Your task to perform on an android device: Add acer nitro to the cart on ebay.com, then select checkout. Image 0: 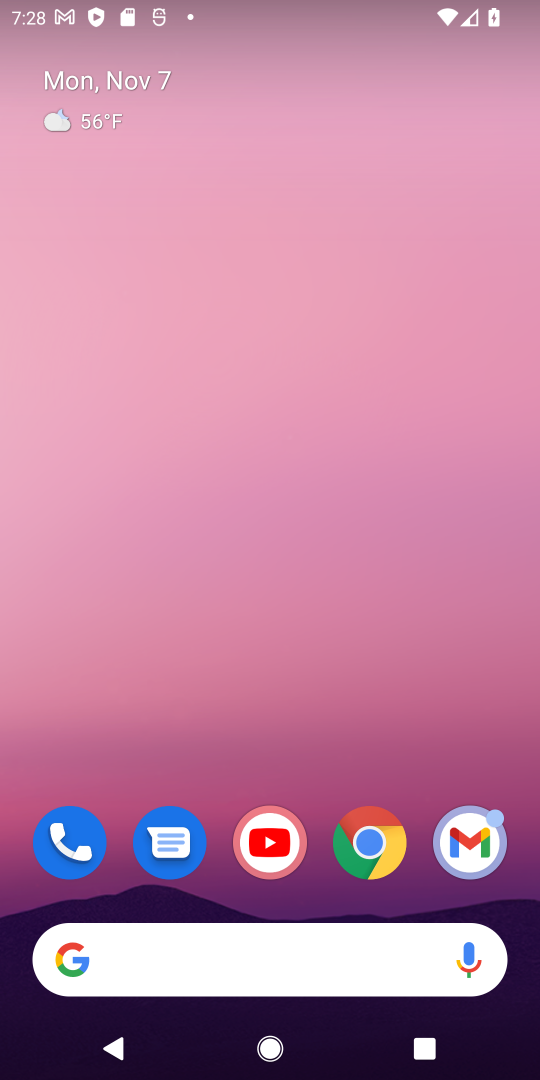
Step 0: click (517, 686)
Your task to perform on an android device: Add acer nitro to the cart on ebay.com, then select checkout. Image 1: 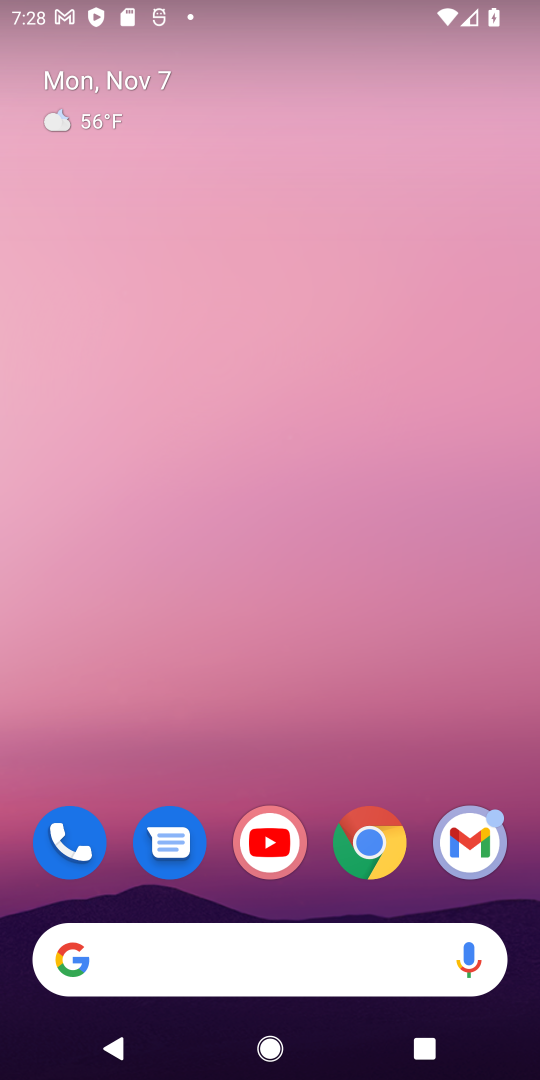
Step 1: click (380, 833)
Your task to perform on an android device: Add acer nitro to the cart on ebay.com, then select checkout. Image 2: 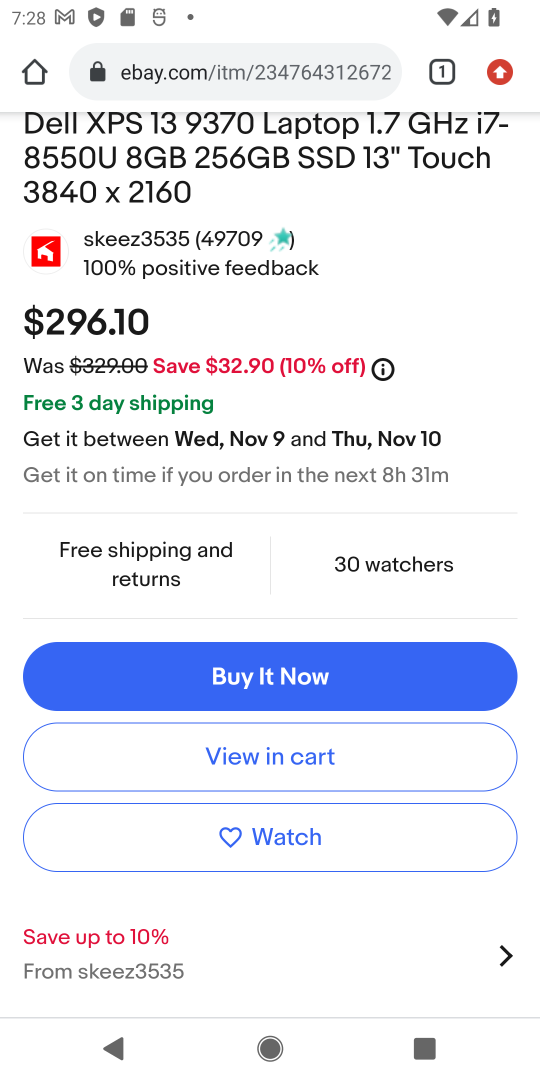
Step 2: drag from (427, 263) to (420, 490)
Your task to perform on an android device: Add acer nitro to the cart on ebay.com, then select checkout. Image 3: 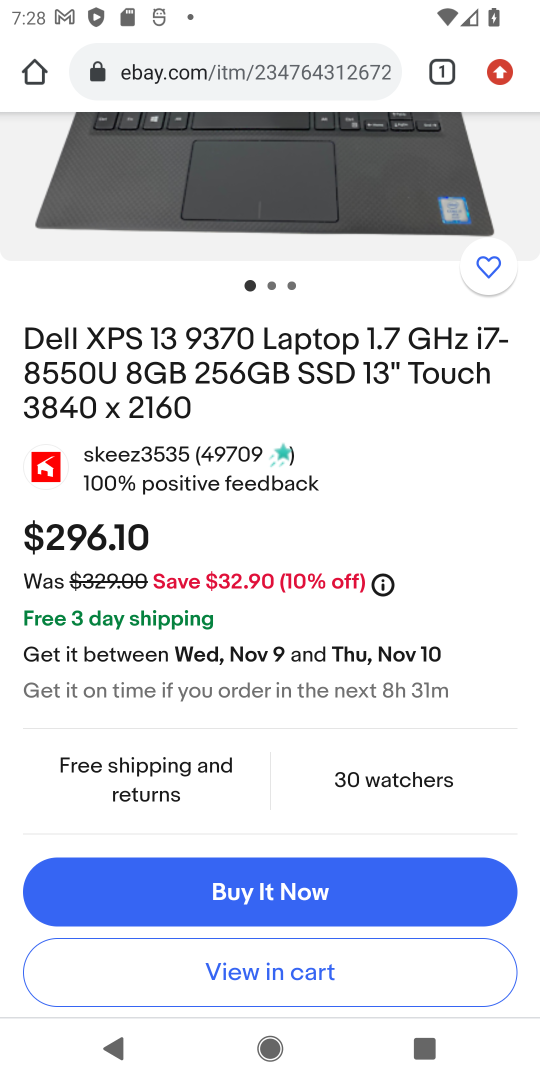
Step 3: click (342, 64)
Your task to perform on an android device: Add acer nitro to the cart on ebay.com, then select checkout. Image 4: 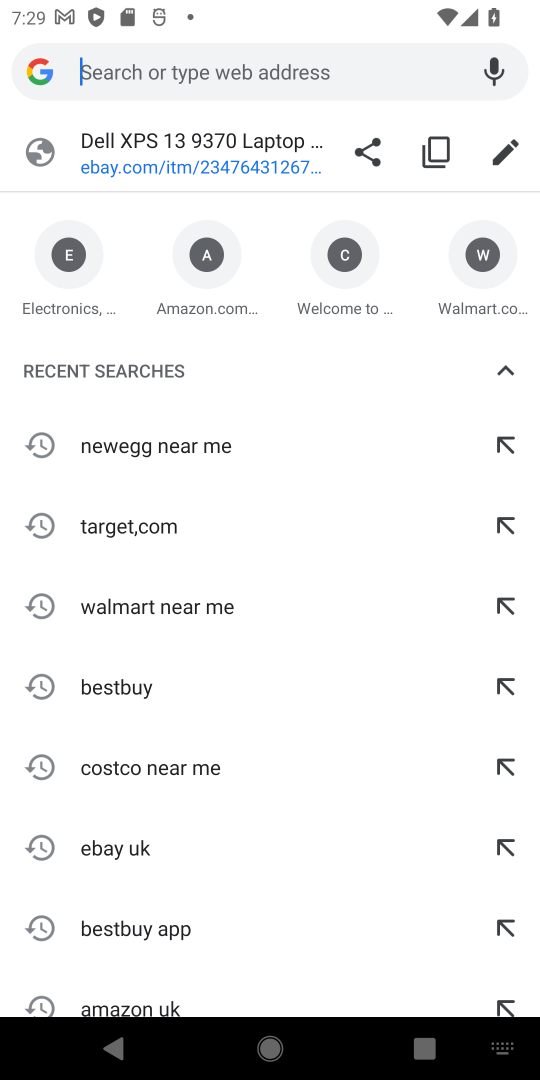
Step 4: type "acer nitro"
Your task to perform on an android device: Add acer nitro to the cart on ebay.com, then select checkout. Image 5: 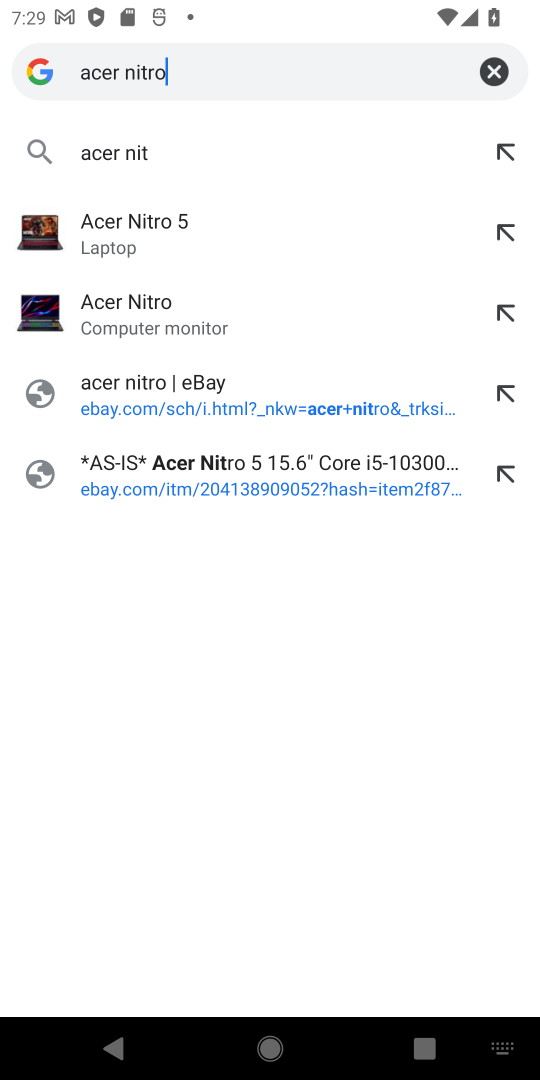
Step 5: press enter
Your task to perform on an android device: Add acer nitro to the cart on ebay.com, then select checkout. Image 6: 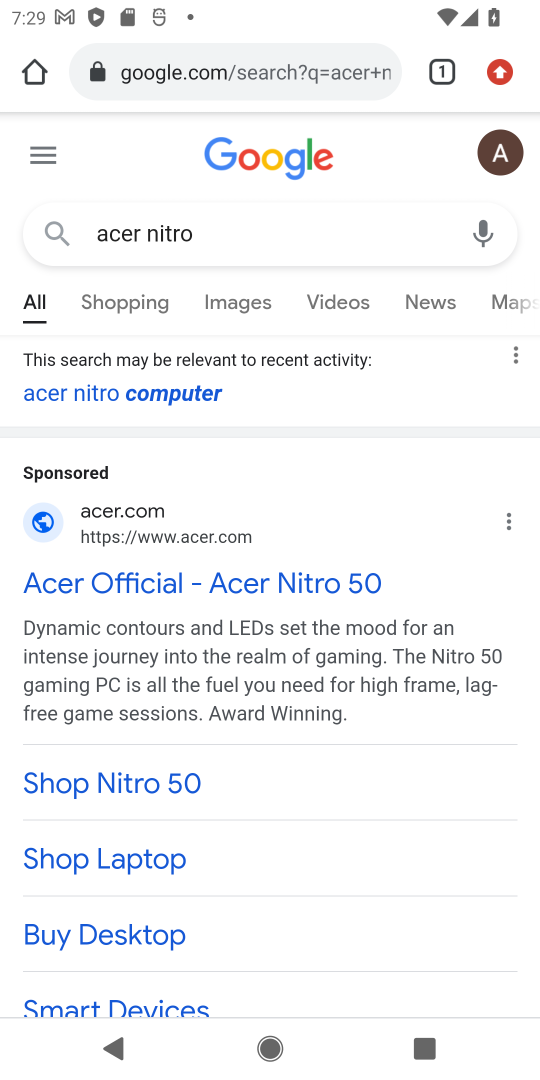
Step 6: click (288, 62)
Your task to perform on an android device: Add acer nitro to the cart on ebay.com, then select checkout. Image 7: 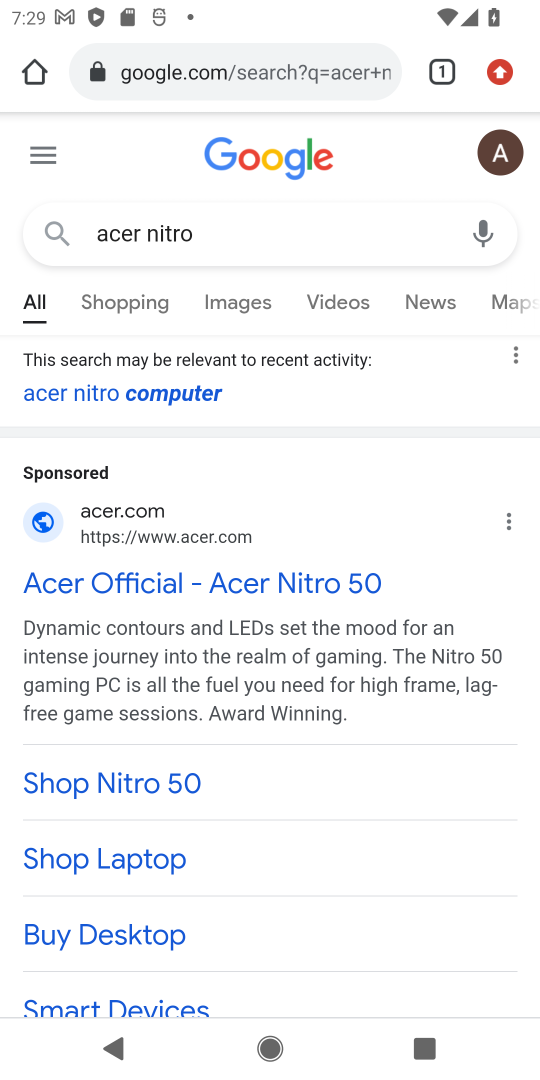
Step 7: click (288, 66)
Your task to perform on an android device: Add acer nitro to the cart on ebay.com, then select checkout. Image 8: 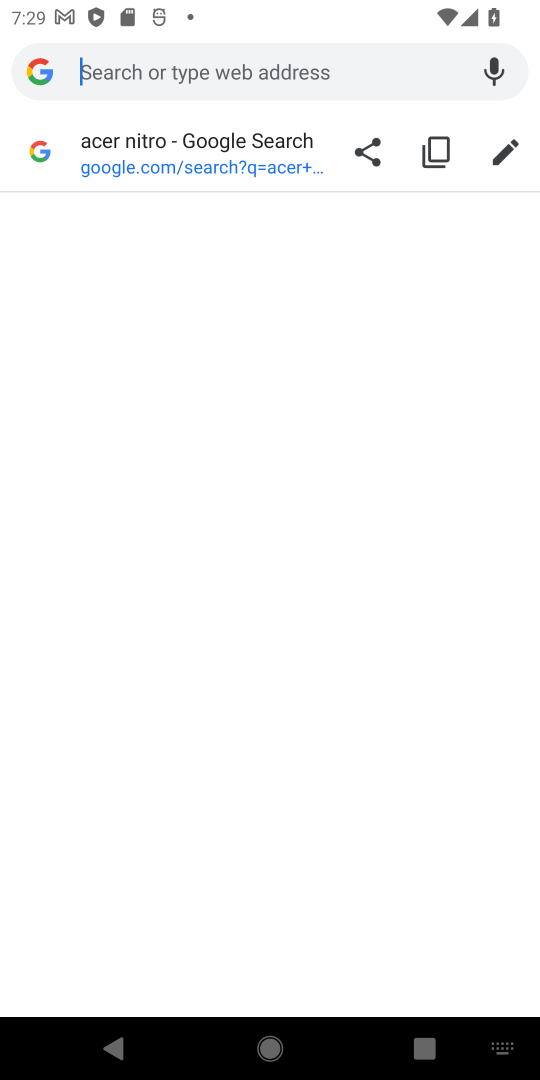
Step 8: click (260, 60)
Your task to perform on an android device: Add acer nitro to the cart on ebay.com, then select checkout. Image 9: 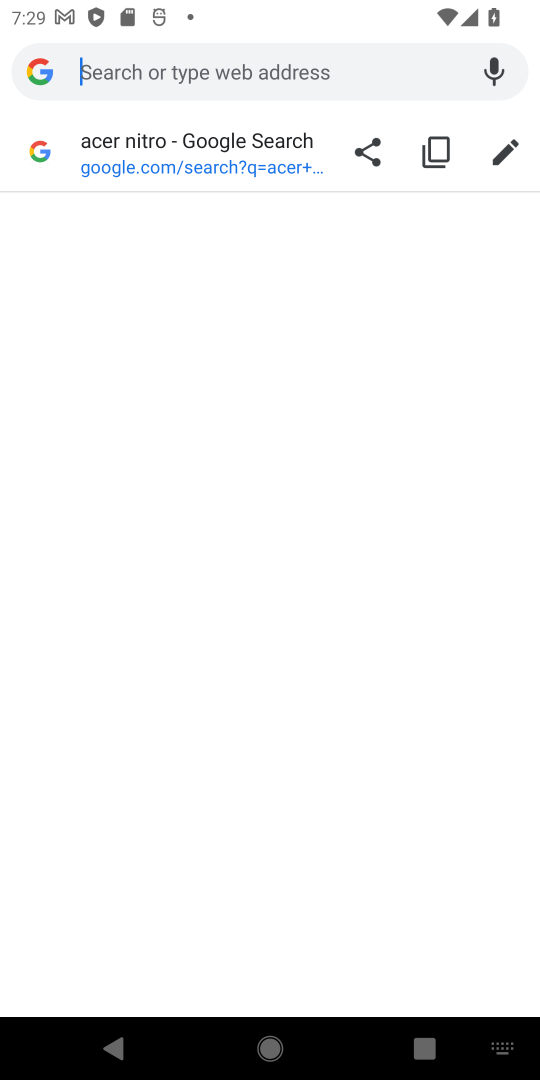
Step 9: type " ebay.com"
Your task to perform on an android device: Add acer nitro to the cart on ebay.com, then select checkout. Image 10: 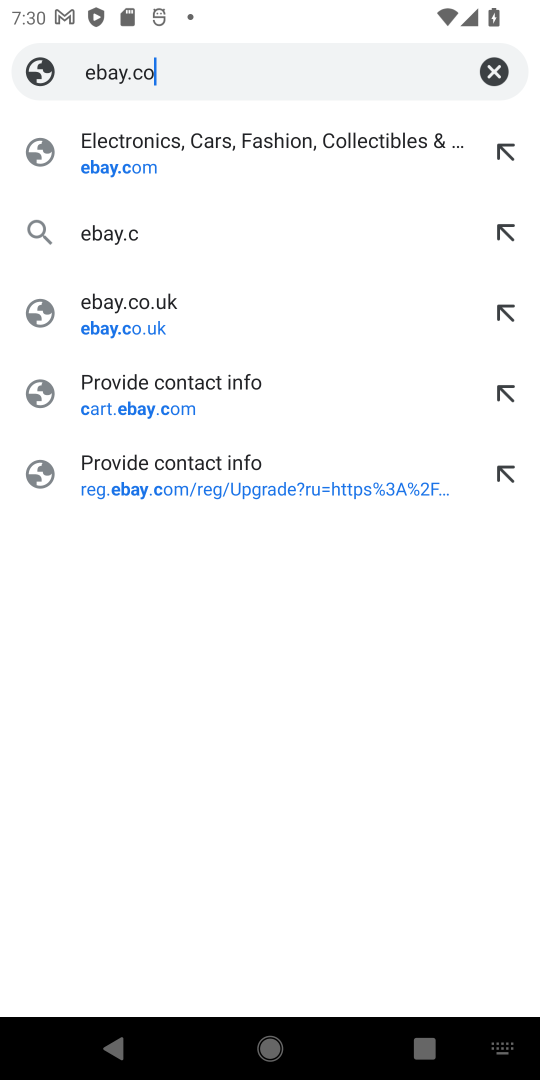
Step 10: press enter
Your task to perform on an android device: Add acer nitro to the cart on ebay.com, then select checkout. Image 11: 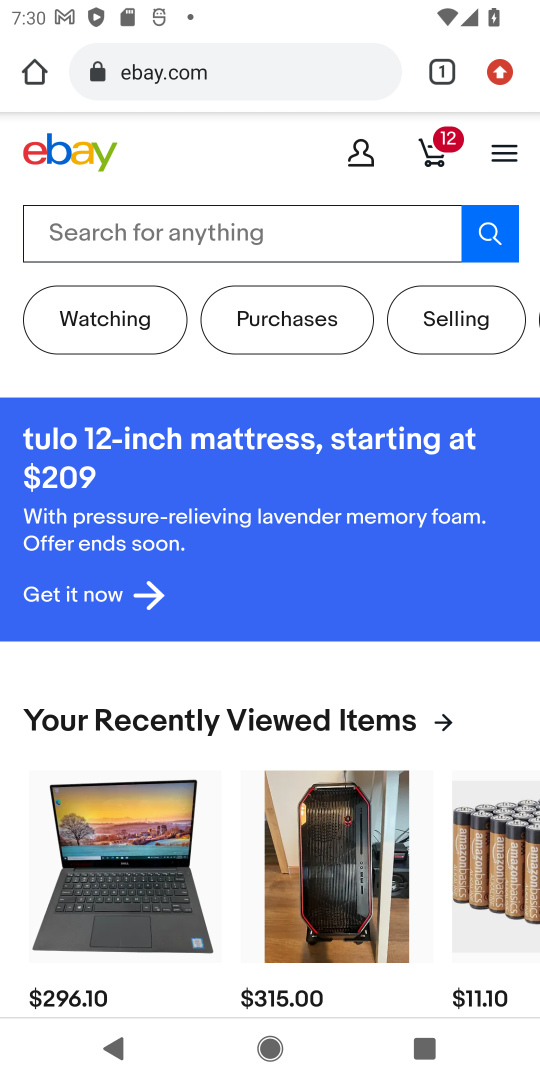
Step 11: click (257, 220)
Your task to perform on an android device: Add acer nitro to the cart on ebay.com, then select checkout. Image 12: 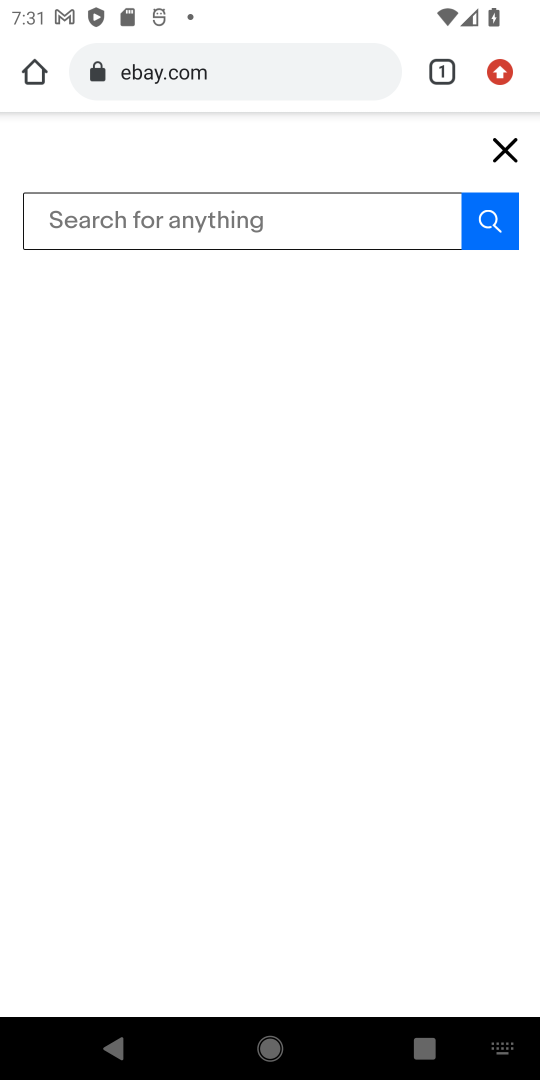
Step 12: type "acer nitro"
Your task to perform on an android device: Add acer nitro to the cart on ebay.com, then select checkout. Image 13: 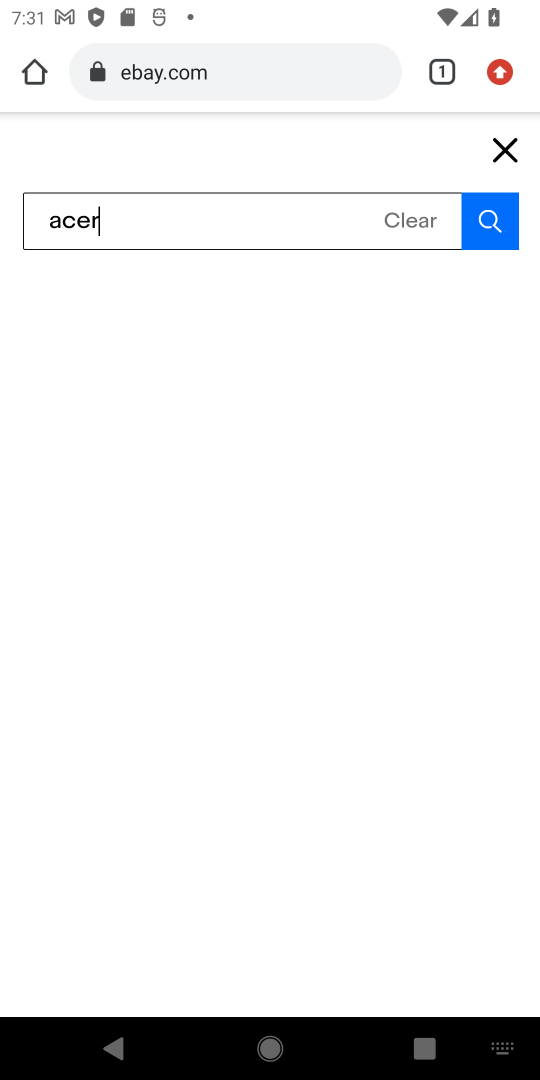
Step 13: press enter
Your task to perform on an android device: Add acer nitro to the cart on ebay.com, then select checkout. Image 14: 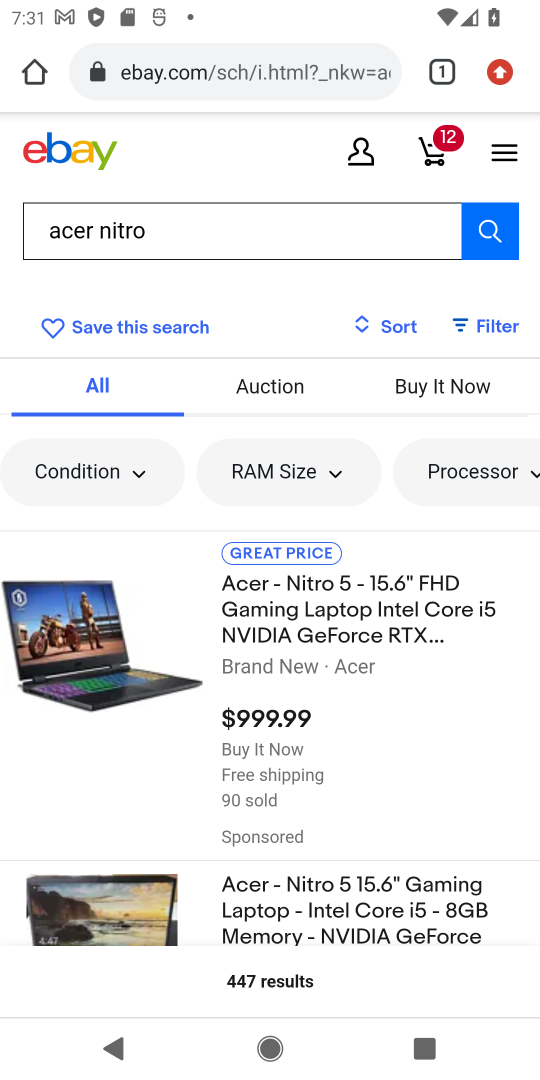
Step 14: click (273, 629)
Your task to perform on an android device: Add acer nitro to the cart on ebay.com, then select checkout. Image 15: 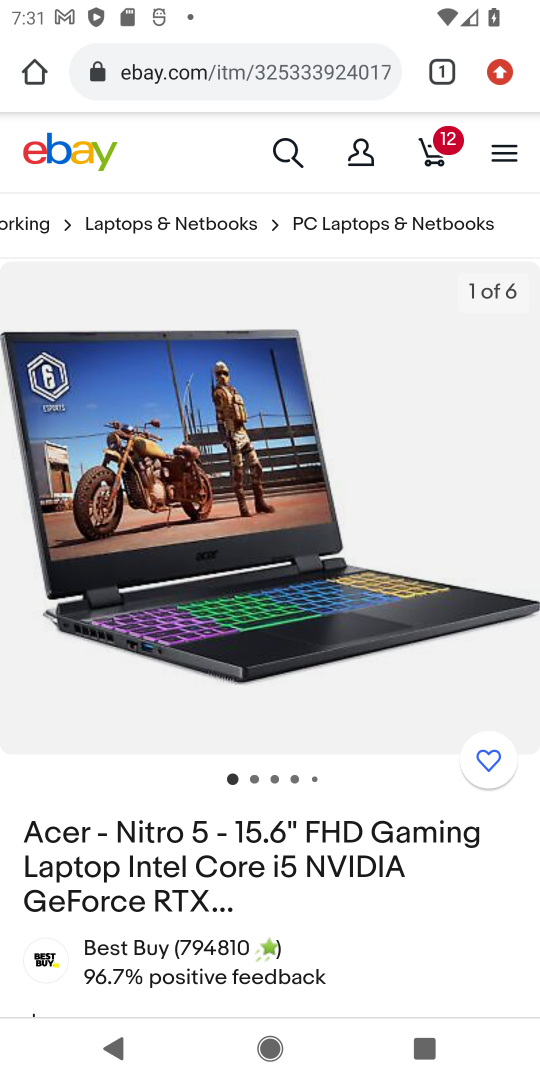
Step 15: drag from (129, 912) to (427, 257)
Your task to perform on an android device: Add acer nitro to the cart on ebay.com, then select checkout. Image 16: 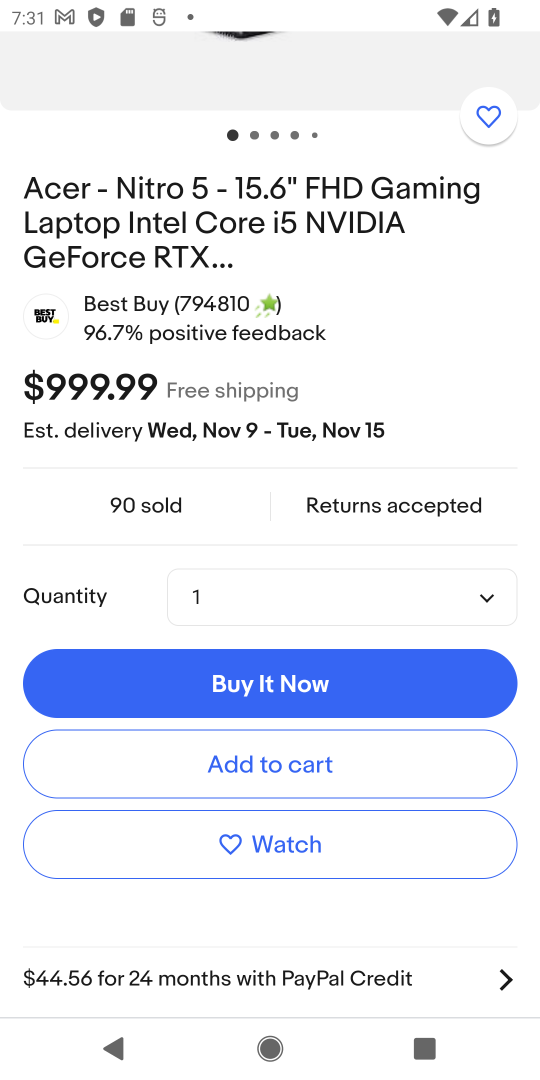
Step 16: click (271, 764)
Your task to perform on an android device: Add acer nitro to the cart on ebay.com, then select checkout. Image 17: 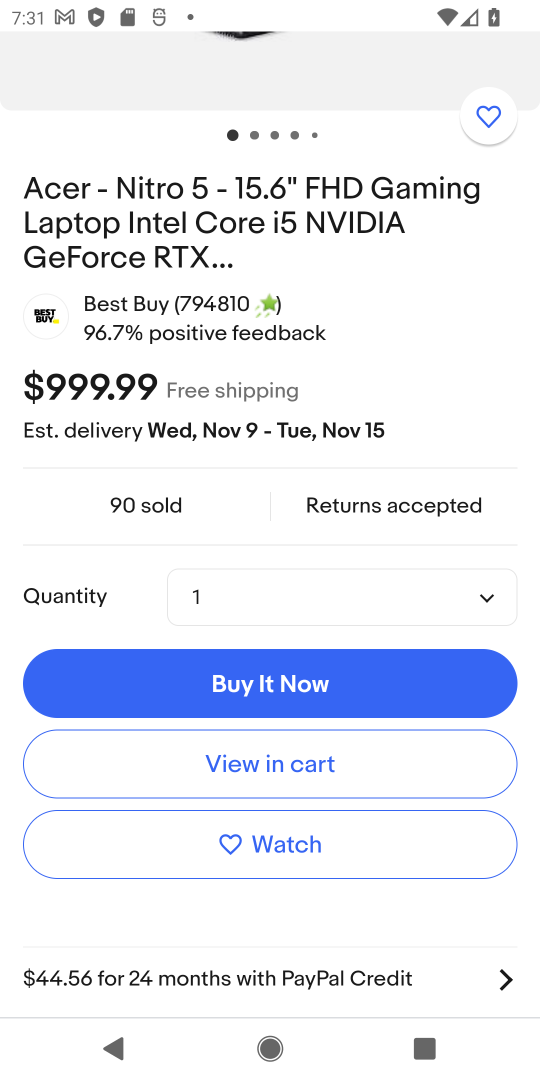
Step 17: drag from (470, 331) to (335, 1015)
Your task to perform on an android device: Add acer nitro to the cart on ebay.com, then select checkout. Image 18: 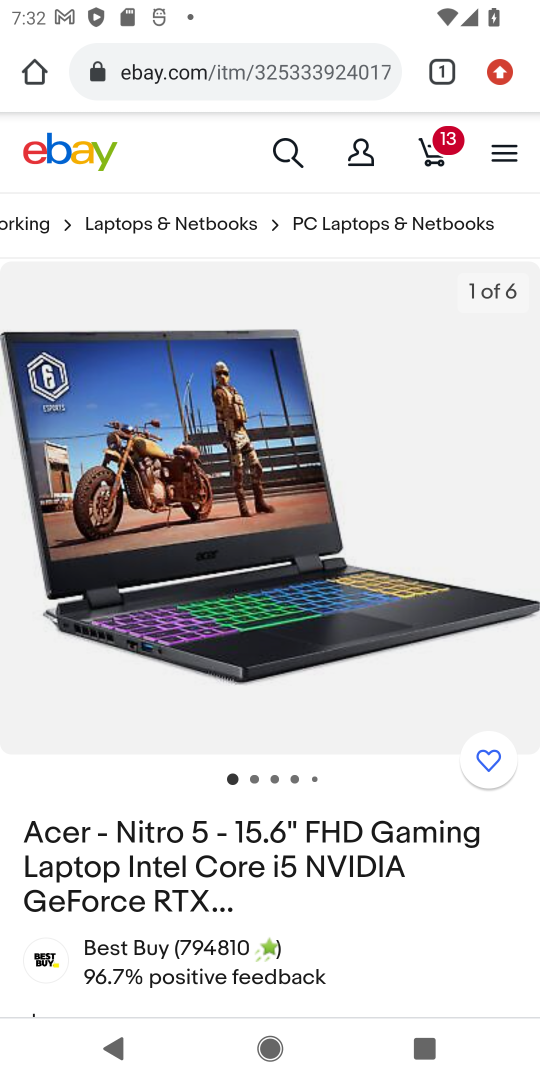
Step 18: click (427, 155)
Your task to perform on an android device: Add acer nitro to the cart on ebay.com, then select checkout. Image 19: 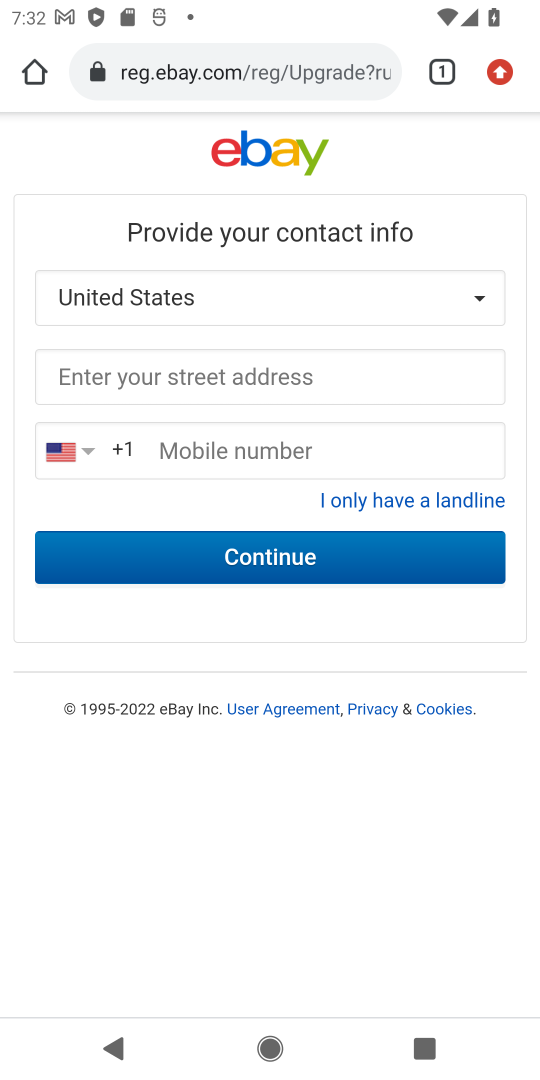
Step 19: task complete